Your task to perform on an android device: turn off smart reply in the gmail app Image 0: 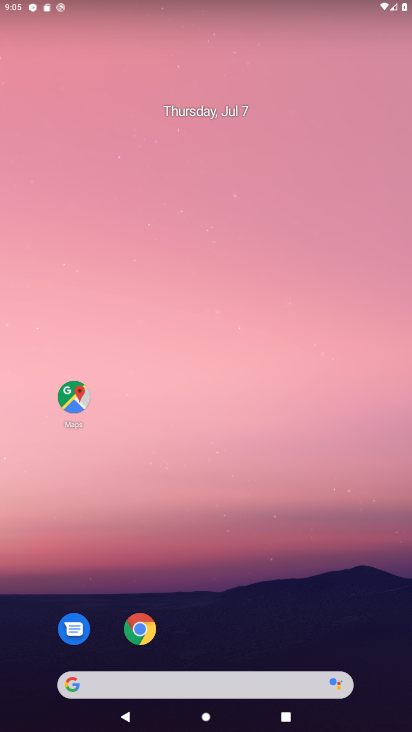
Step 0: drag from (231, 577) to (204, 92)
Your task to perform on an android device: turn off smart reply in the gmail app Image 1: 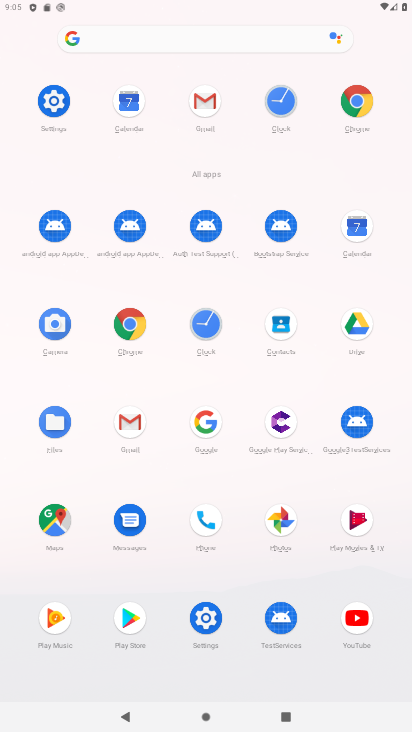
Step 1: click (129, 422)
Your task to perform on an android device: turn off smart reply in the gmail app Image 2: 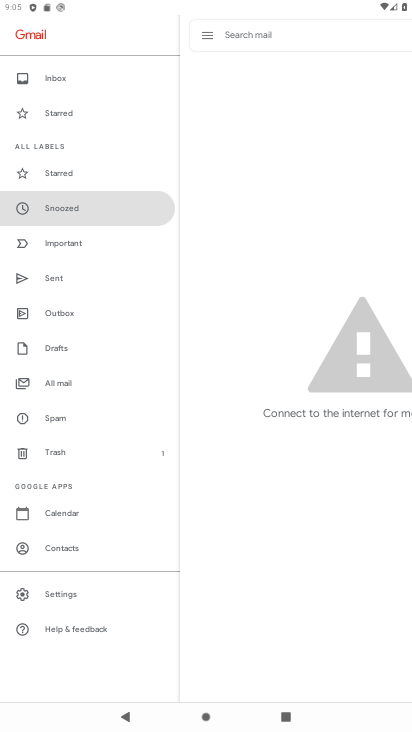
Step 2: click (67, 593)
Your task to perform on an android device: turn off smart reply in the gmail app Image 3: 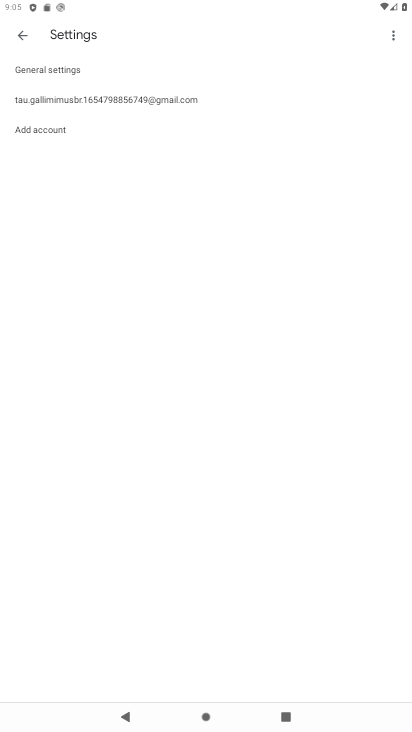
Step 3: click (68, 100)
Your task to perform on an android device: turn off smart reply in the gmail app Image 4: 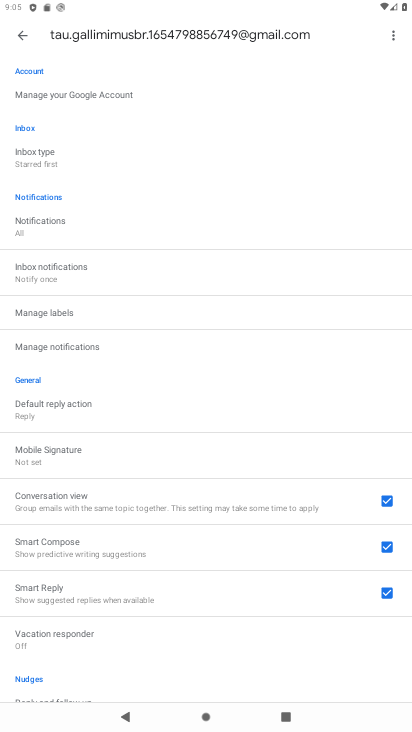
Step 4: click (388, 590)
Your task to perform on an android device: turn off smart reply in the gmail app Image 5: 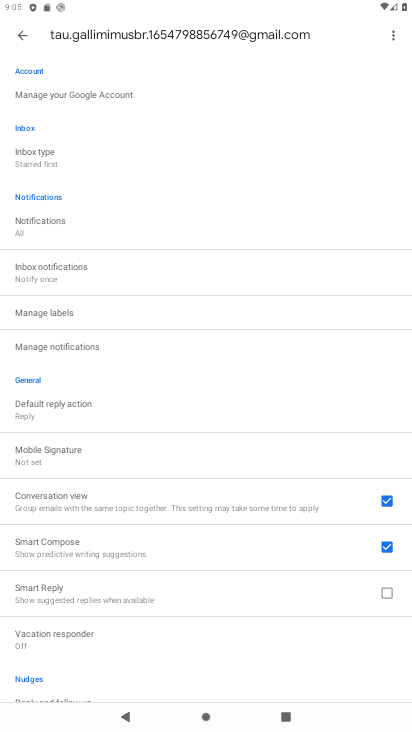
Step 5: task complete